Your task to perform on an android device: Open the stopwatch Image 0: 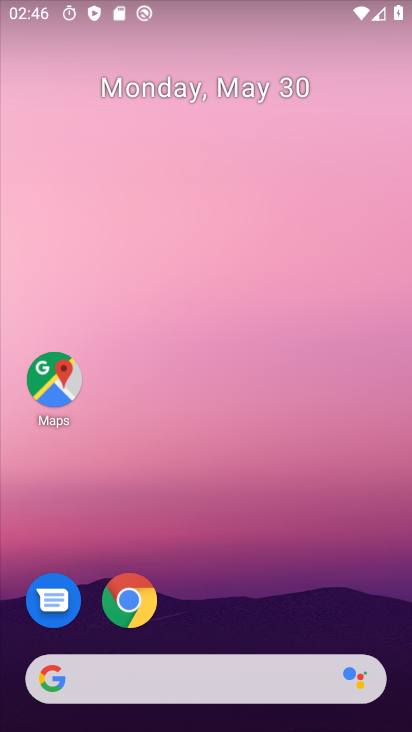
Step 0: drag from (253, 588) to (235, 92)
Your task to perform on an android device: Open the stopwatch Image 1: 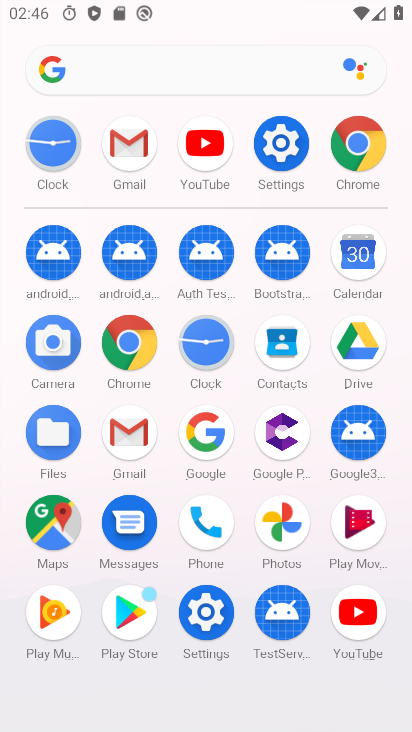
Step 1: click (56, 155)
Your task to perform on an android device: Open the stopwatch Image 2: 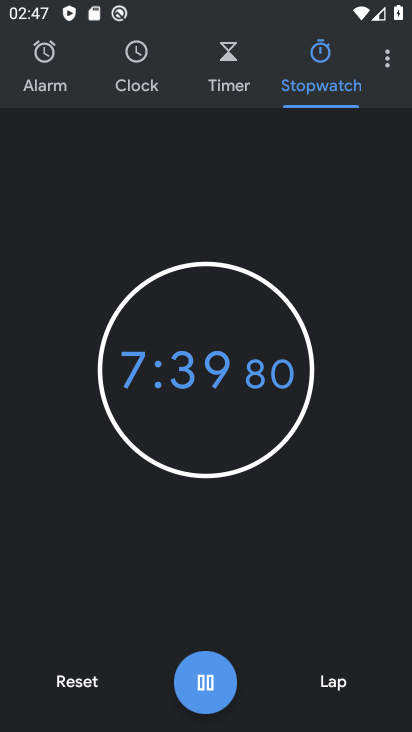
Step 2: task complete